Your task to perform on an android device: open chrome and create a bookmark for the current page Image 0: 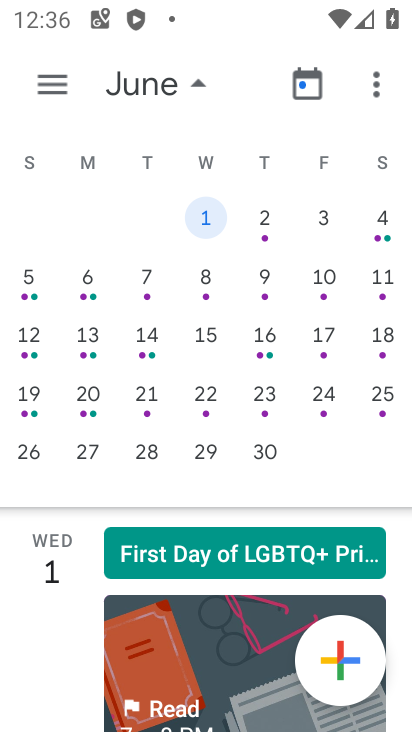
Step 0: press home button
Your task to perform on an android device: open chrome and create a bookmark for the current page Image 1: 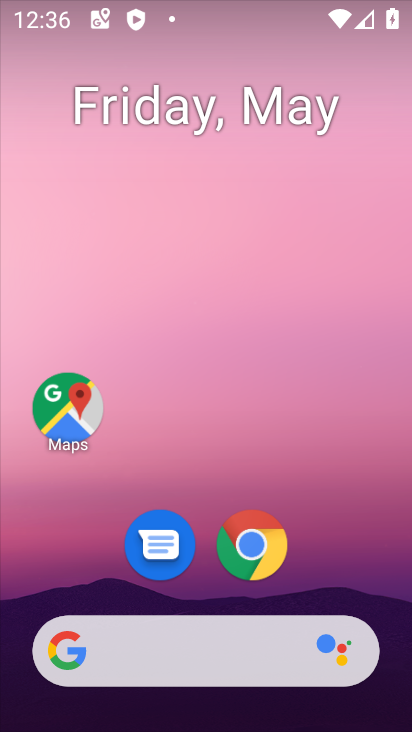
Step 1: click (260, 546)
Your task to perform on an android device: open chrome and create a bookmark for the current page Image 2: 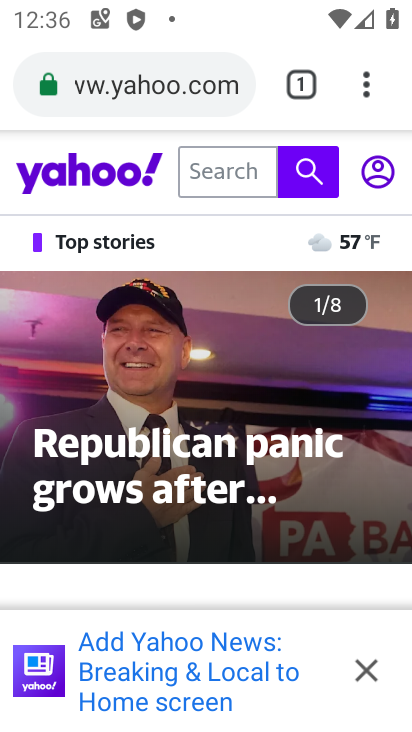
Step 2: click (366, 89)
Your task to perform on an android device: open chrome and create a bookmark for the current page Image 3: 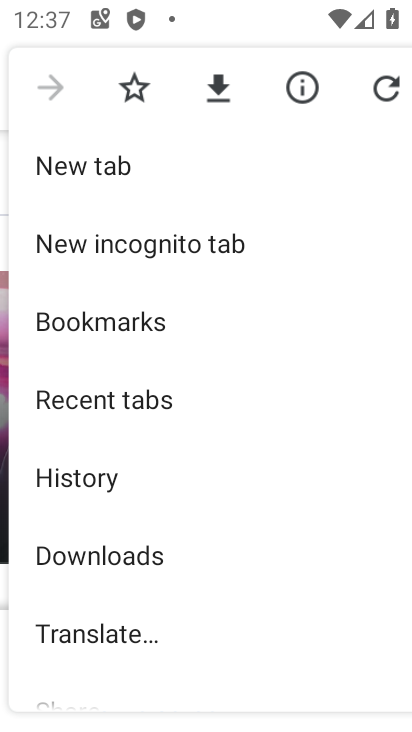
Step 3: click (150, 321)
Your task to perform on an android device: open chrome and create a bookmark for the current page Image 4: 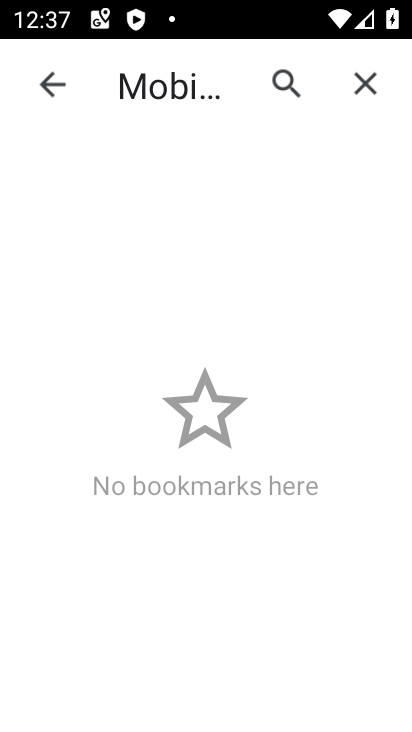
Step 4: press back button
Your task to perform on an android device: open chrome and create a bookmark for the current page Image 5: 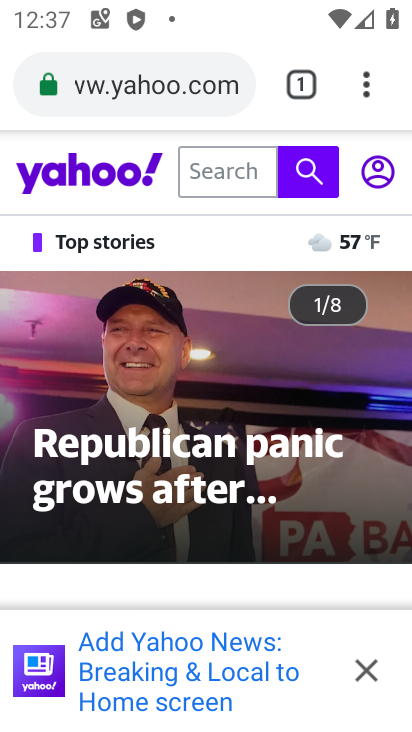
Step 5: click (351, 85)
Your task to perform on an android device: open chrome and create a bookmark for the current page Image 6: 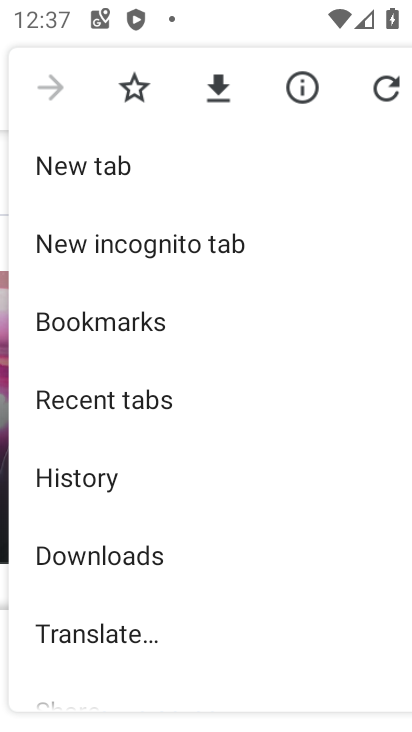
Step 6: task complete